Your task to perform on an android device: Go to ESPN.com Image 0: 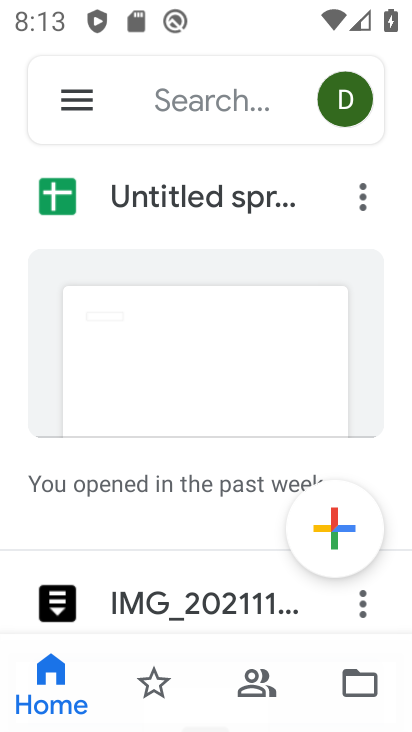
Step 0: press home button
Your task to perform on an android device: Go to ESPN.com Image 1: 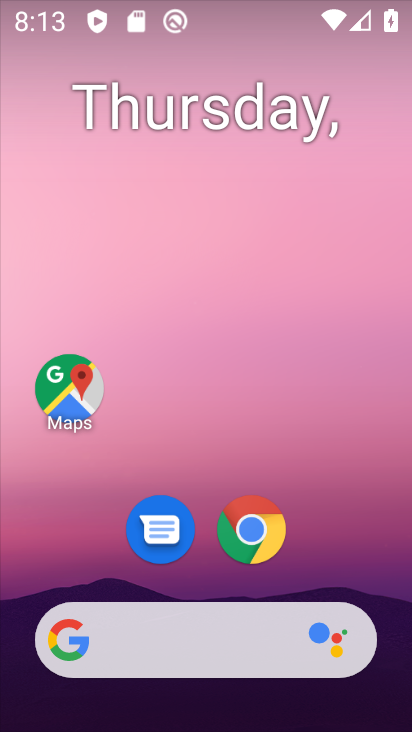
Step 1: click (254, 532)
Your task to perform on an android device: Go to ESPN.com Image 2: 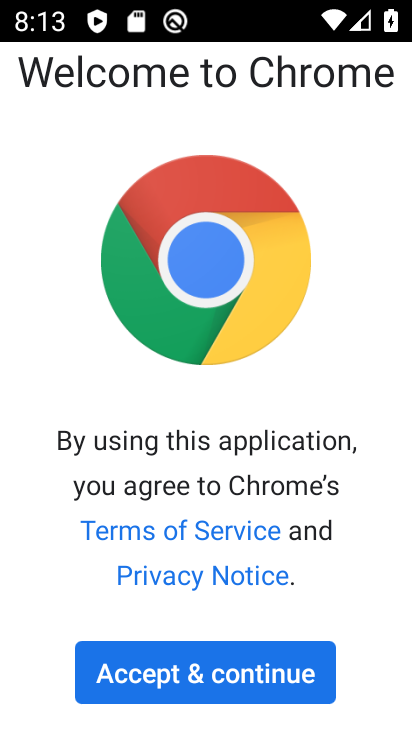
Step 2: click (184, 666)
Your task to perform on an android device: Go to ESPN.com Image 3: 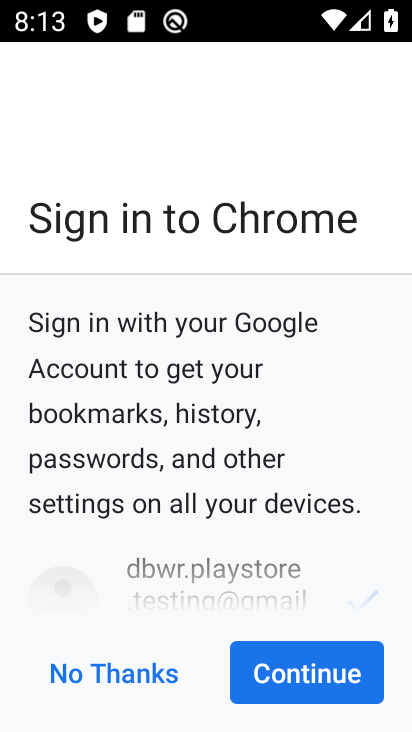
Step 3: click (189, 663)
Your task to perform on an android device: Go to ESPN.com Image 4: 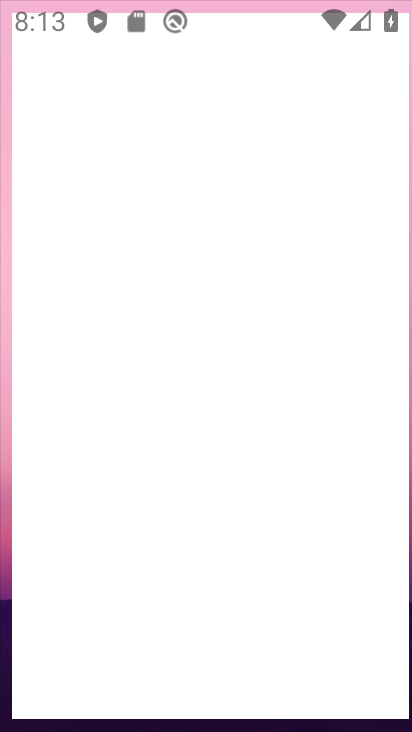
Step 4: click (300, 669)
Your task to perform on an android device: Go to ESPN.com Image 5: 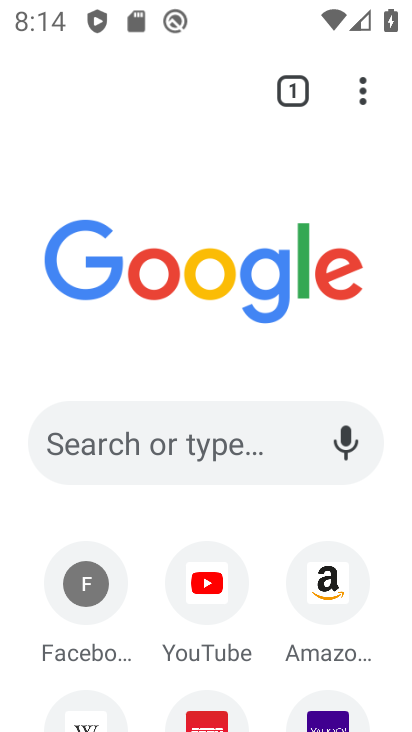
Step 5: drag from (203, 498) to (206, 269)
Your task to perform on an android device: Go to ESPN.com Image 6: 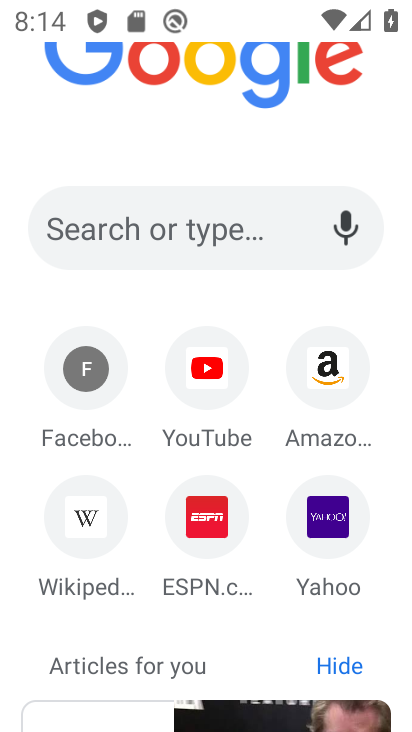
Step 6: click (206, 506)
Your task to perform on an android device: Go to ESPN.com Image 7: 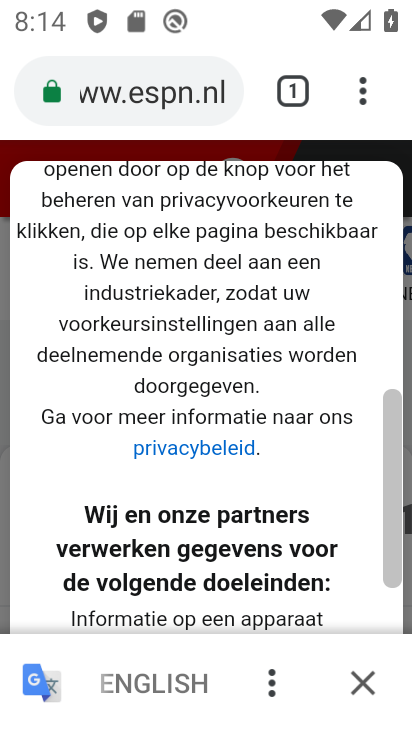
Step 7: drag from (232, 555) to (217, 231)
Your task to perform on an android device: Go to ESPN.com Image 8: 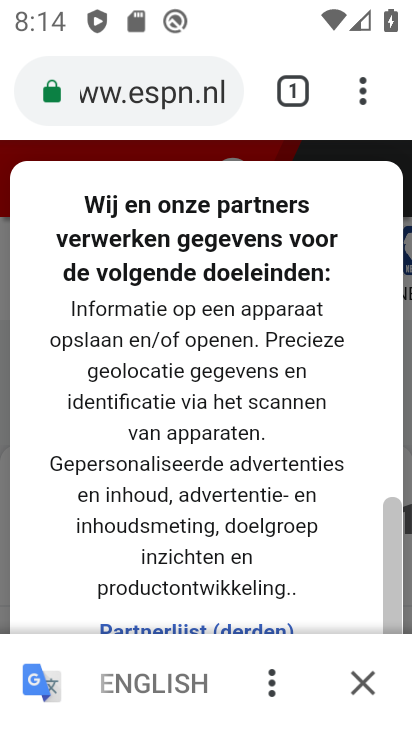
Step 8: drag from (221, 573) to (230, 221)
Your task to perform on an android device: Go to ESPN.com Image 9: 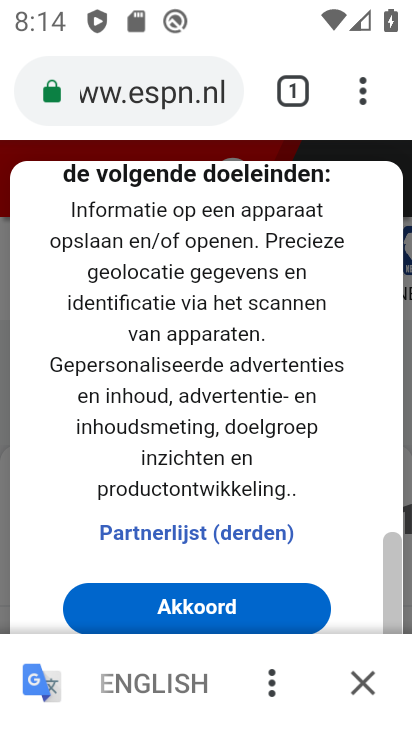
Step 9: click (204, 605)
Your task to perform on an android device: Go to ESPN.com Image 10: 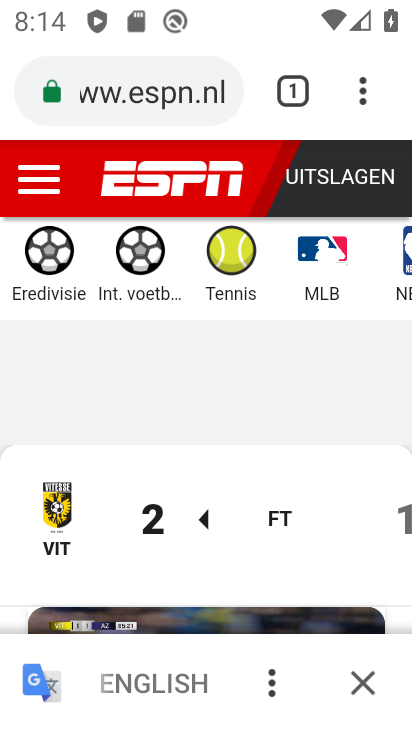
Step 10: task complete